Your task to perform on an android device: Play the last video I watched on Youtube Image 0: 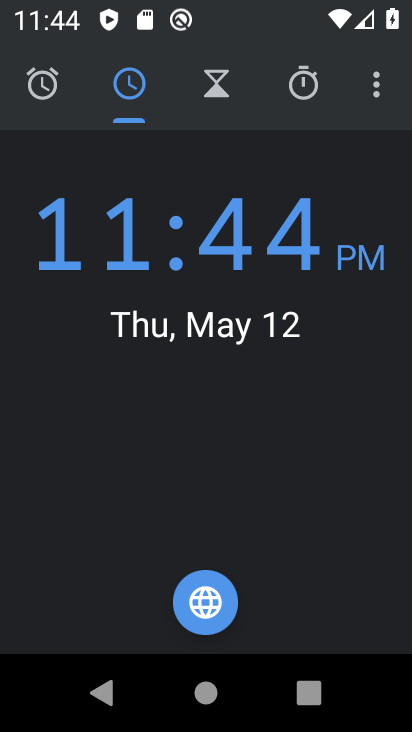
Step 0: press home button
Your task to perform on an android device: Play the last video I watched on Youtube Image 1: 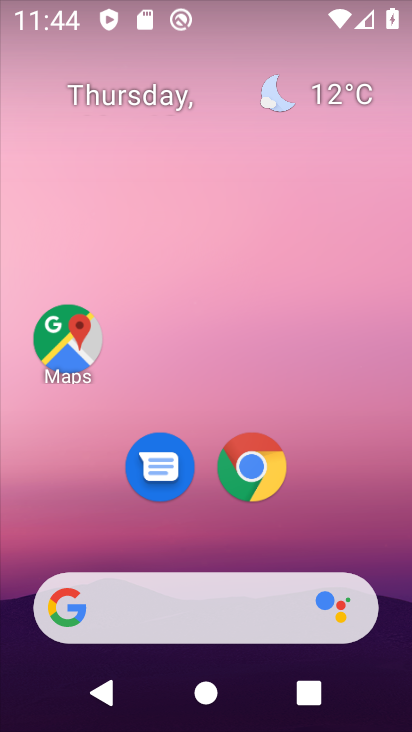
Step 1: drag from (371, 502) to (401, 337)
Your task to perform on an android device: Play the last video I watched on Youtube Image 2: 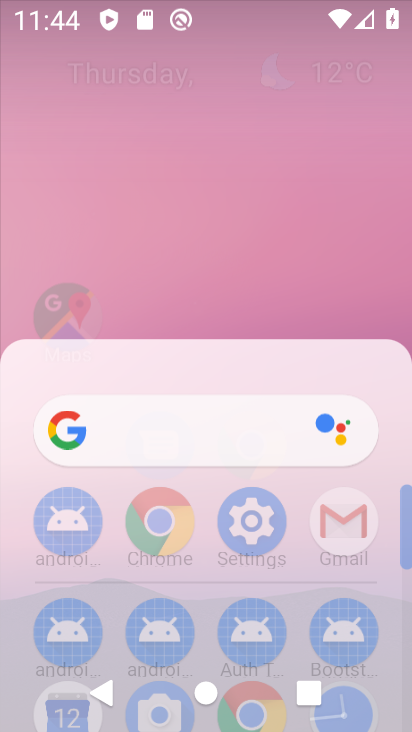
Step 2: drag from (358, 438) to (406, 140)
Your task to perform on an android device: Play the last video I watched on Youtube Image 3: 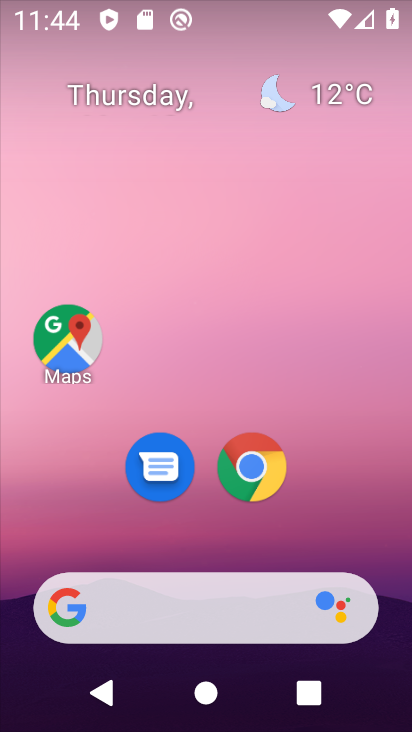
Step 3: drag from (366, 463) to (410, 169)
Your task to perform on an android device: Play the last video I watched on Youtube Image 4: 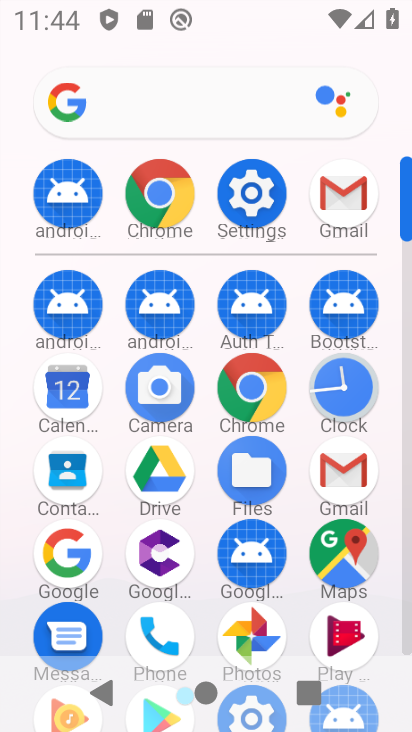
Step 4: drag from (380, 329) to (386, 191)
Your task to perform on an android device: Play the last video I watched on Youtube Image 5: 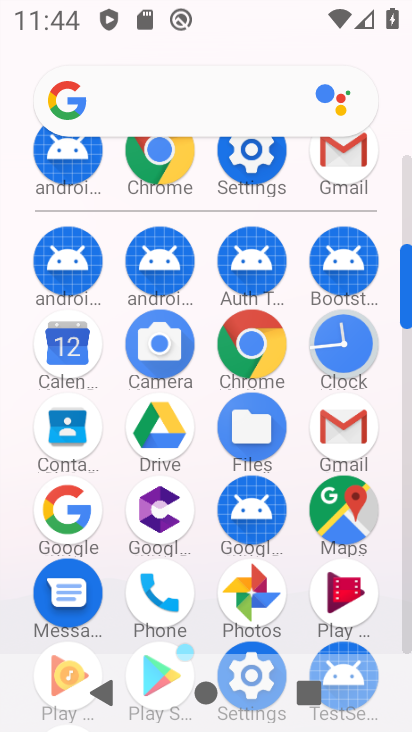
Step 5: drag from (374, 587) to (411, 261)
Your task to perform on an android device: Play the last video I watched on Youtube Image 6: 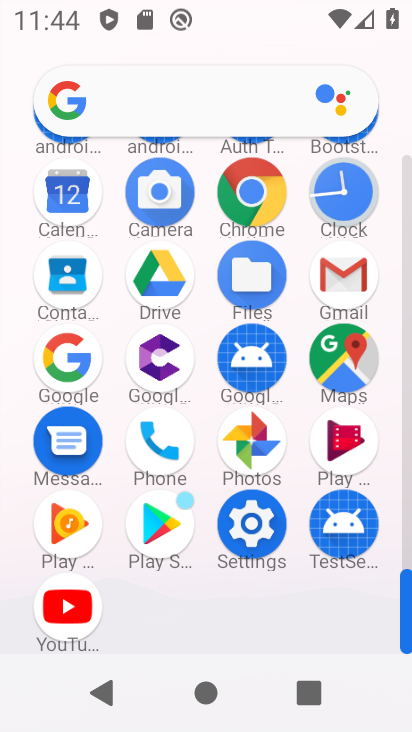
Step 6: click (57, 609)
Your task to perform on an android device: Play the last video I watched on Youtube Image 7: 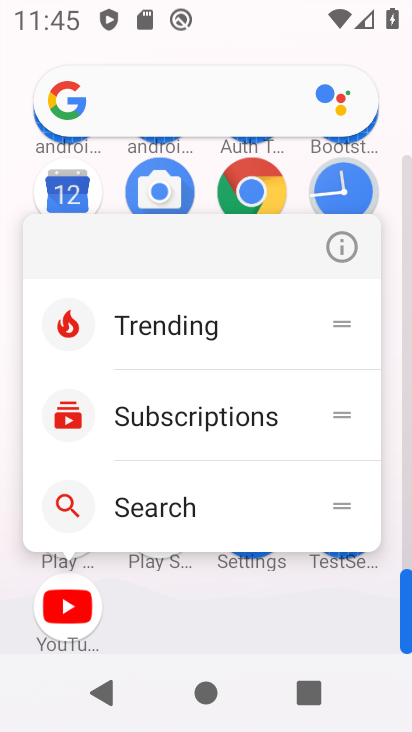
Step 7: click (70, 606)
Your task to perform on an android device: Play the last video I watched on Youtube Image 8: 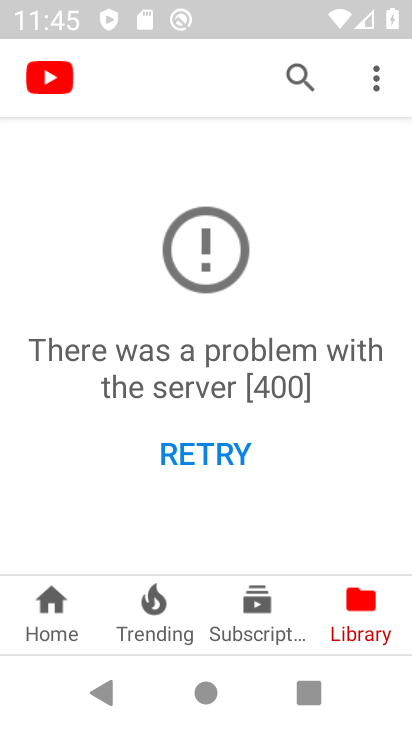
Step 8: click (375, 609)
Your task to perform on an android device: Play the last video I watched on Youtube Image 9: 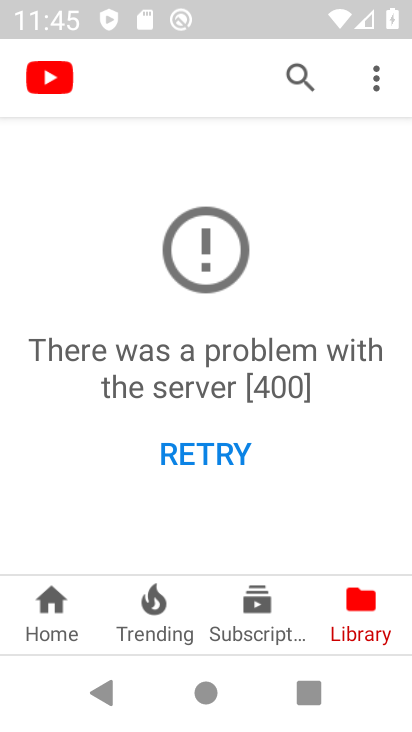
Step 9: click (197, 441)
Your task to perform on an android device: Play the last video I watched on Youtube Image 10: 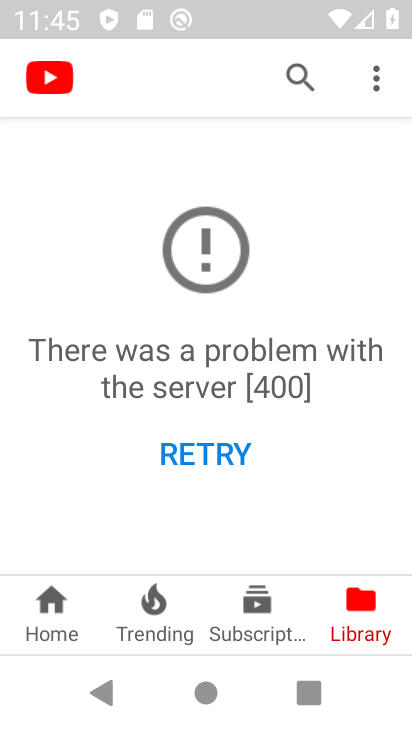
Step 10: task complete